Your task to perform on an android device: delete browsing data in the chrome app Image 0: 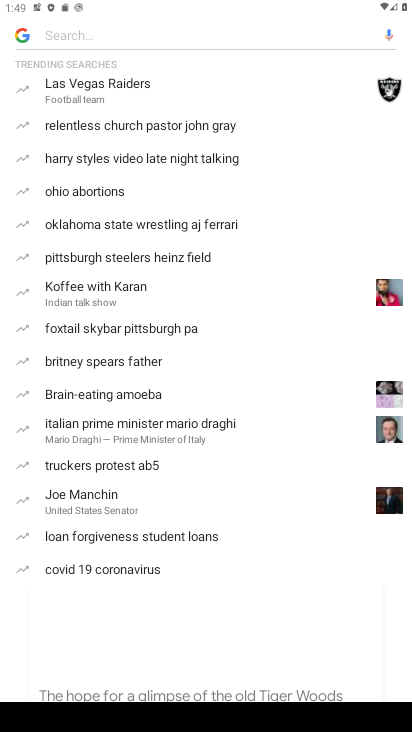
Step 0: press home button
Your task to perform on an android device: delete browsing data in the chrome app Image 1: 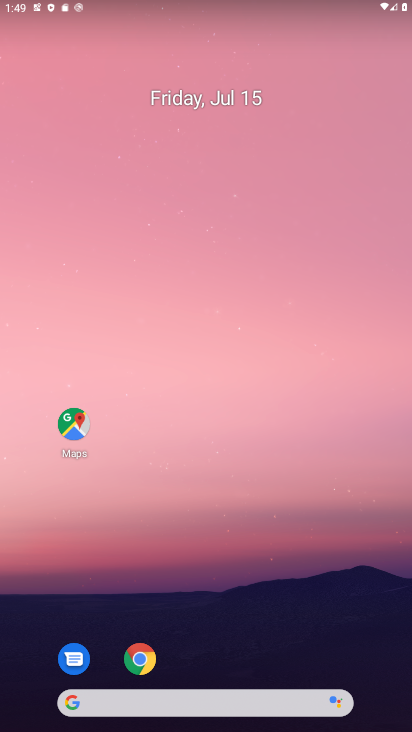
Step 1: drag from (199, 626) to (188, 184)
Your task to perform on an android device: delete browsing data in the chrome app Image 2: 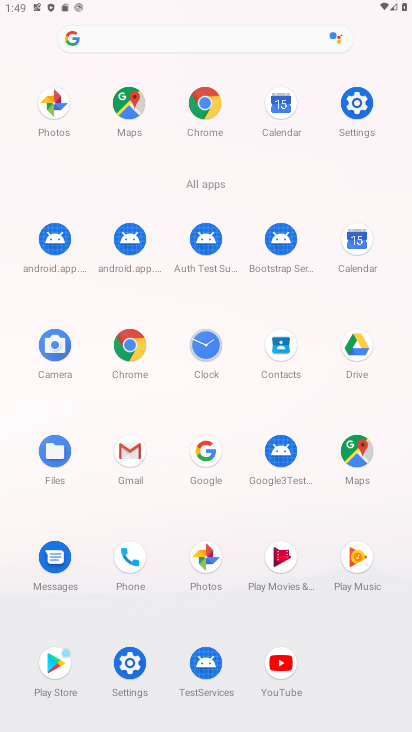
Step 2: click (207, 105)
Your task to perform on an android device: delete browsing data in the chrome app Image 3: 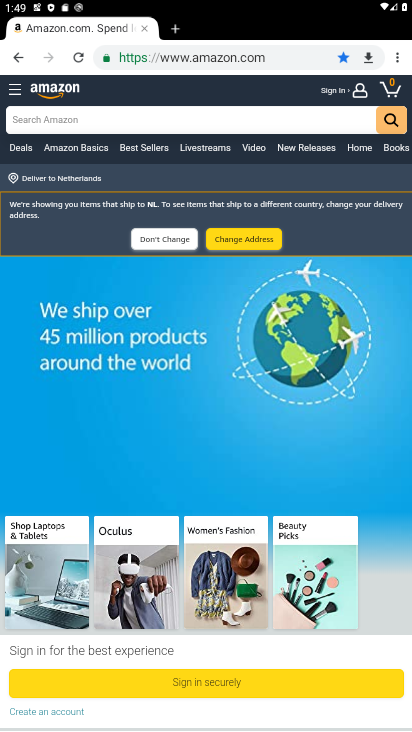
Step 3: click (403, 62)
Your task to perform on an android device: delete browsing data in the chrome app Image 4: 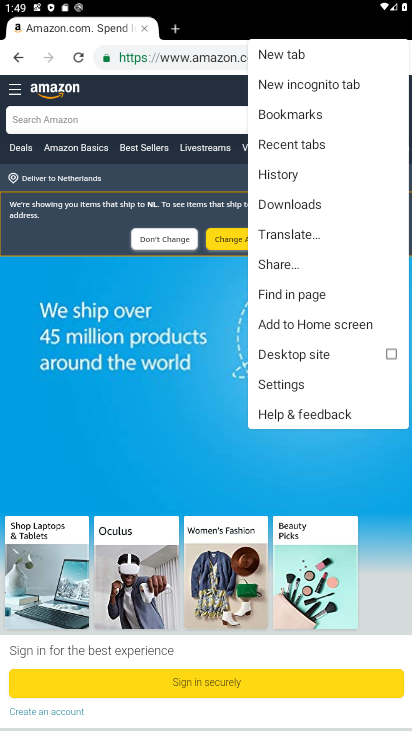
Step 4: click (288, 381)
Your task to perform on an android device: delete browsing data in the chrome app Image 5: 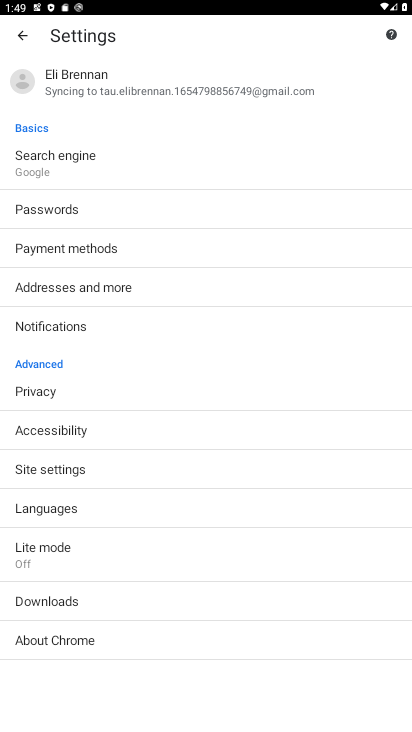
Step 5: click (58, 386)
Your task to perform on an android device: delete browsing data in the chrome app Image 6: 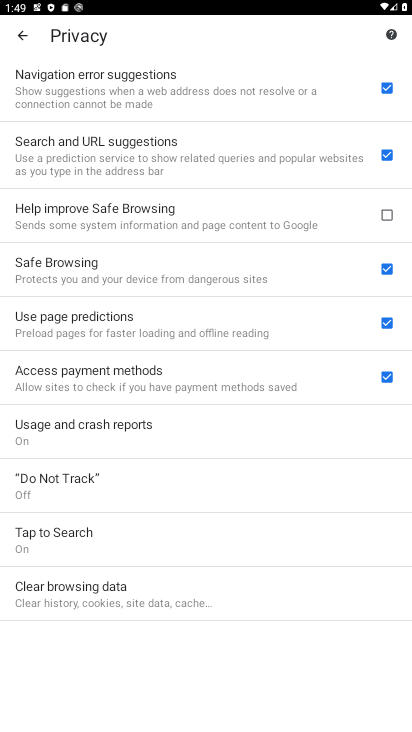
Step 6: click (117, 602)
Your task to perform on an android device: delete browsing data in the chrome app Image 7: 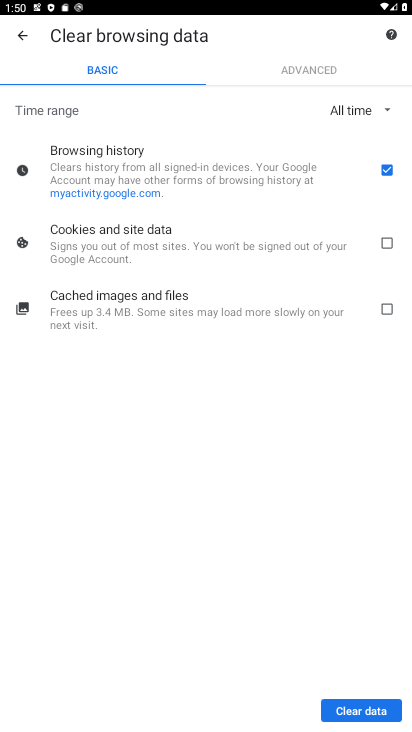
Step 7: click (331, 695)
Your task to perform on an android device: delete browsing data in the chrome app Image 8: 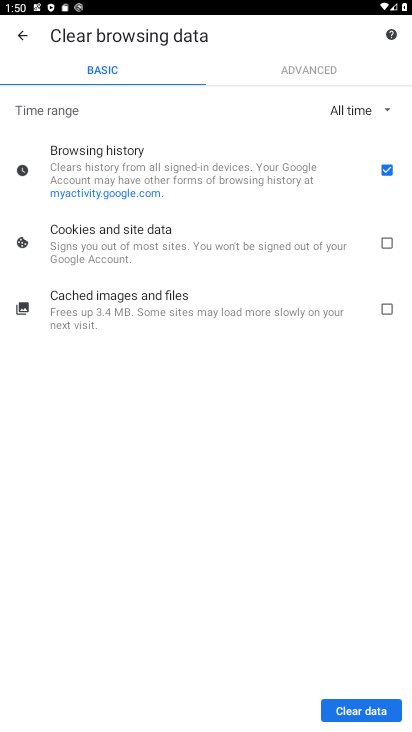
Step 8: click (354, 708)
Your task to perform on an android device: delete browsing data in the chrome app Image 9: 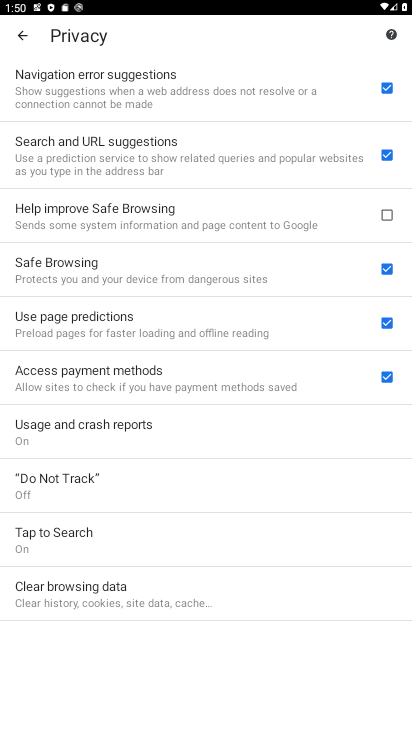
Step 9: task complete